Your task to perform on an android device: Go to location settings Image 0: 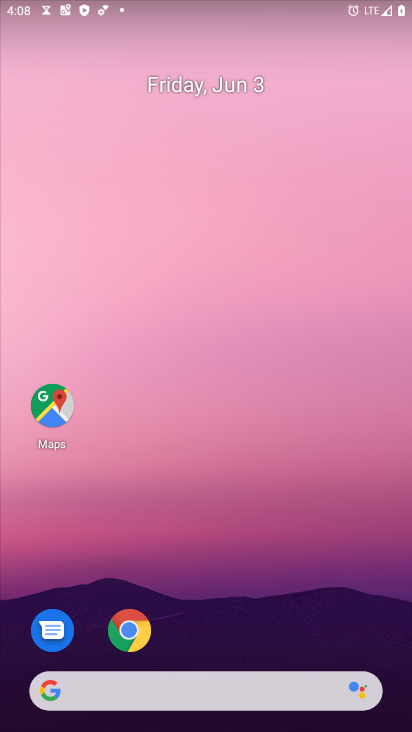
Step 0: drag from (226, 587) to (219, 9)
Your task to perform on an android device: Go to location settings Image 1: 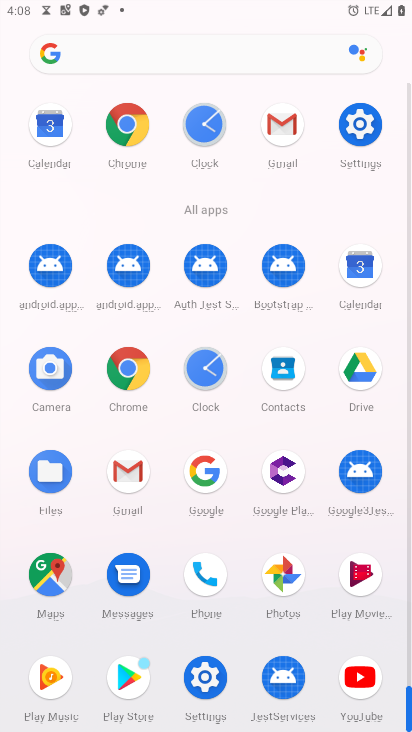
Step 1: drag from (0, 533) to (15, 129)
Your task to perform on an android device: Go to location settings Image 2: 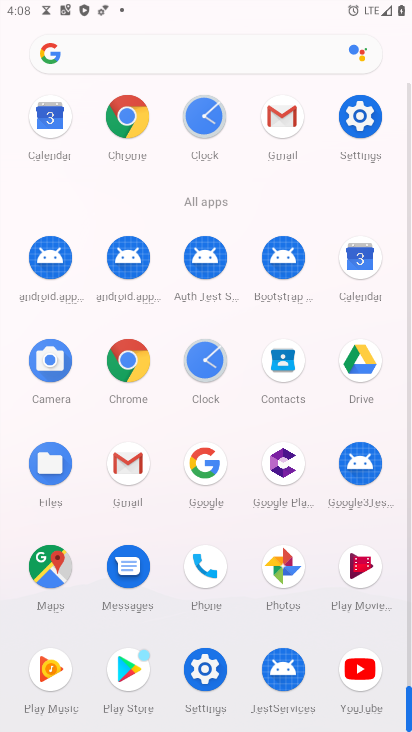
Step 2: click (206, 665)
Your task to perform on an android device: Go to location settings Image 3: 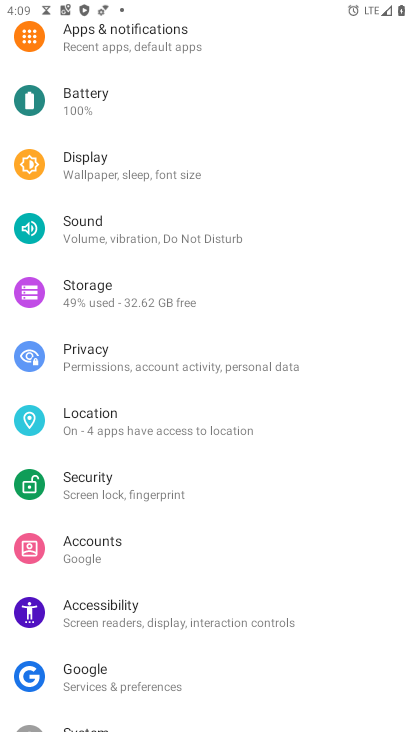
Step 3: click (96, 422)
Your task to perform on an android device: Go to location settings Image 4: 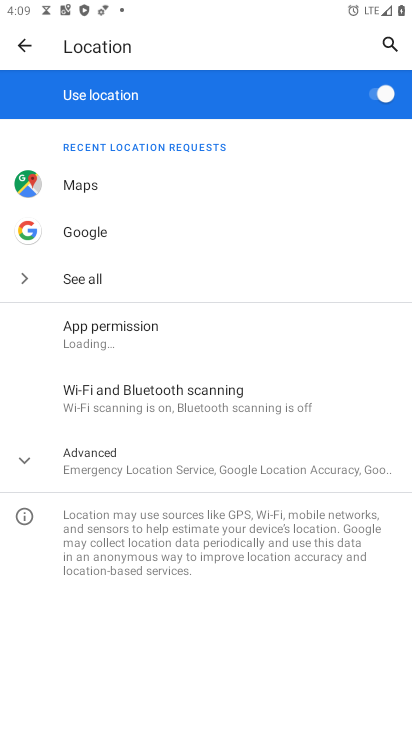
Step 4: click (49, 464)
Your task to perform on an android device: Go to location settings Image 5: 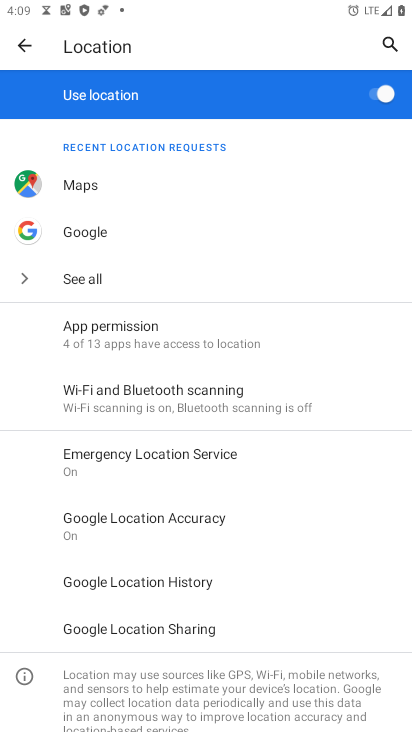
Step 5: task complete